Your task to perform on an android device: check battery use Image 0: 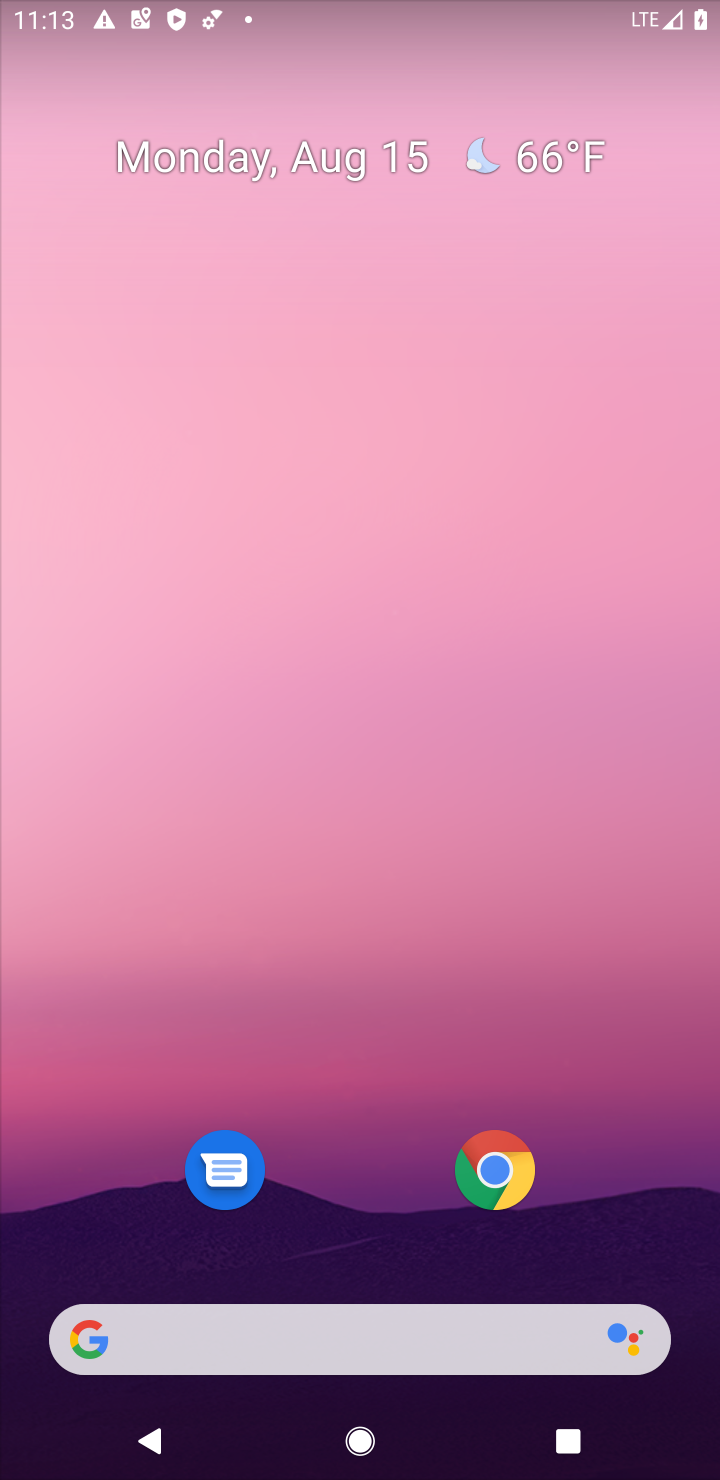
Step 0: press home button
Your task to perform on an android device: check battery use Image 1: 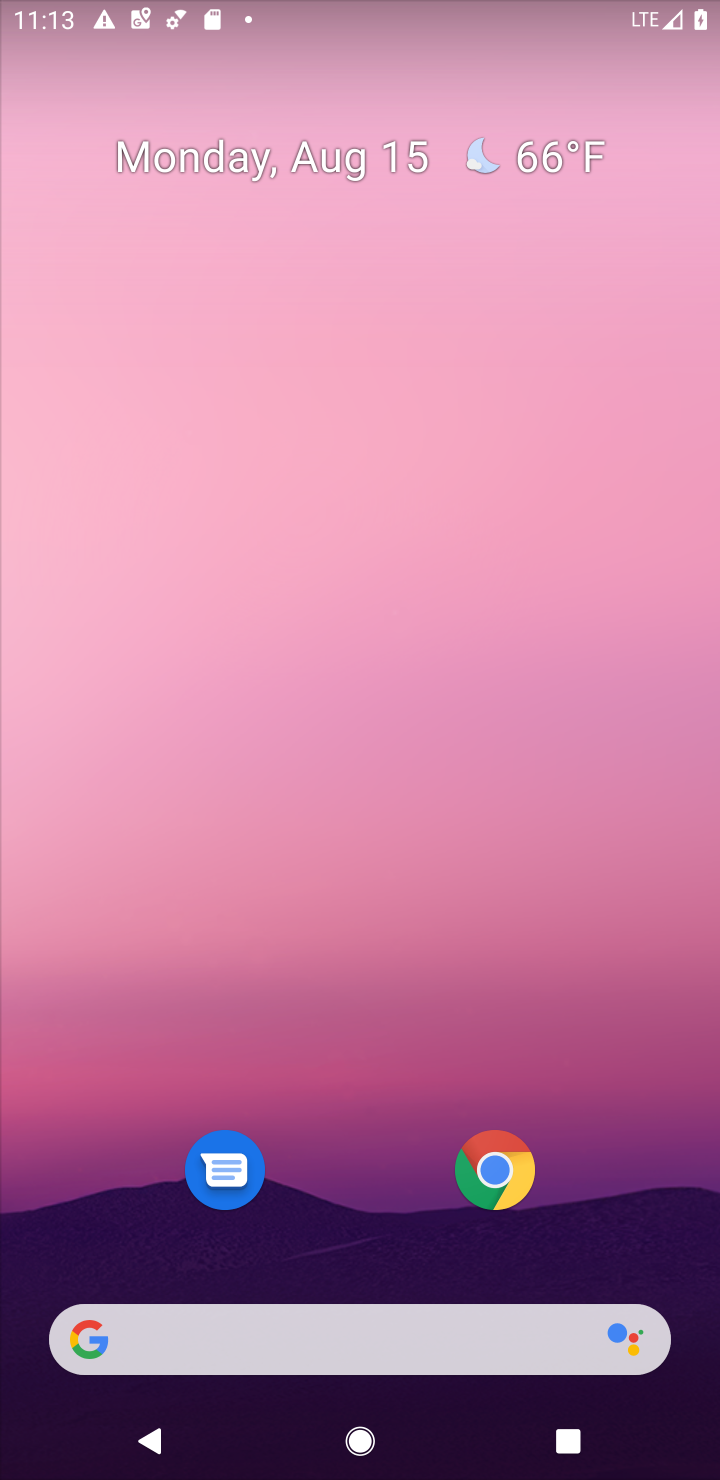
Step 1: drag from (5, 698) to (718, 738)
Your task to perform on an android device: check battery use Image 2: 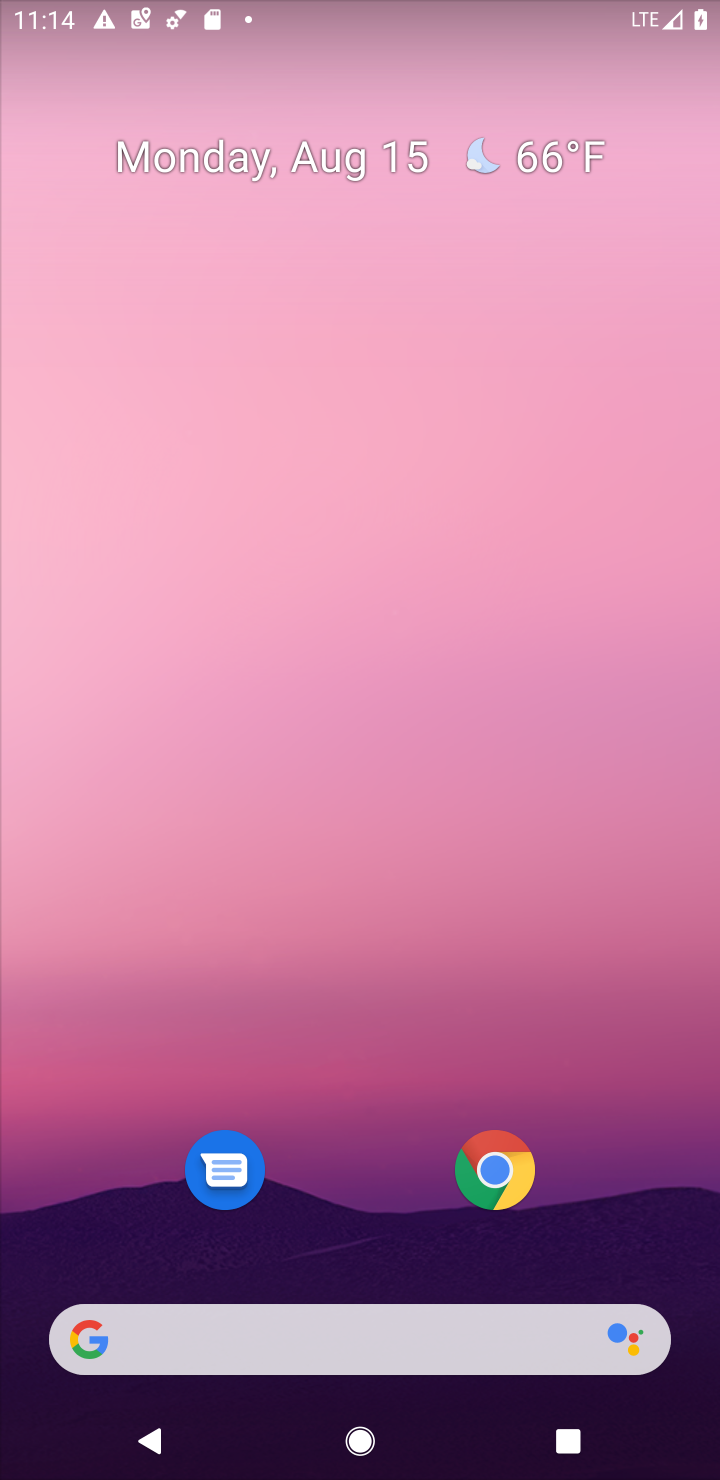
Step 2: drag from (452, 686) to (703, 644)
Your task to perform on an android device: check battery use Image 3: 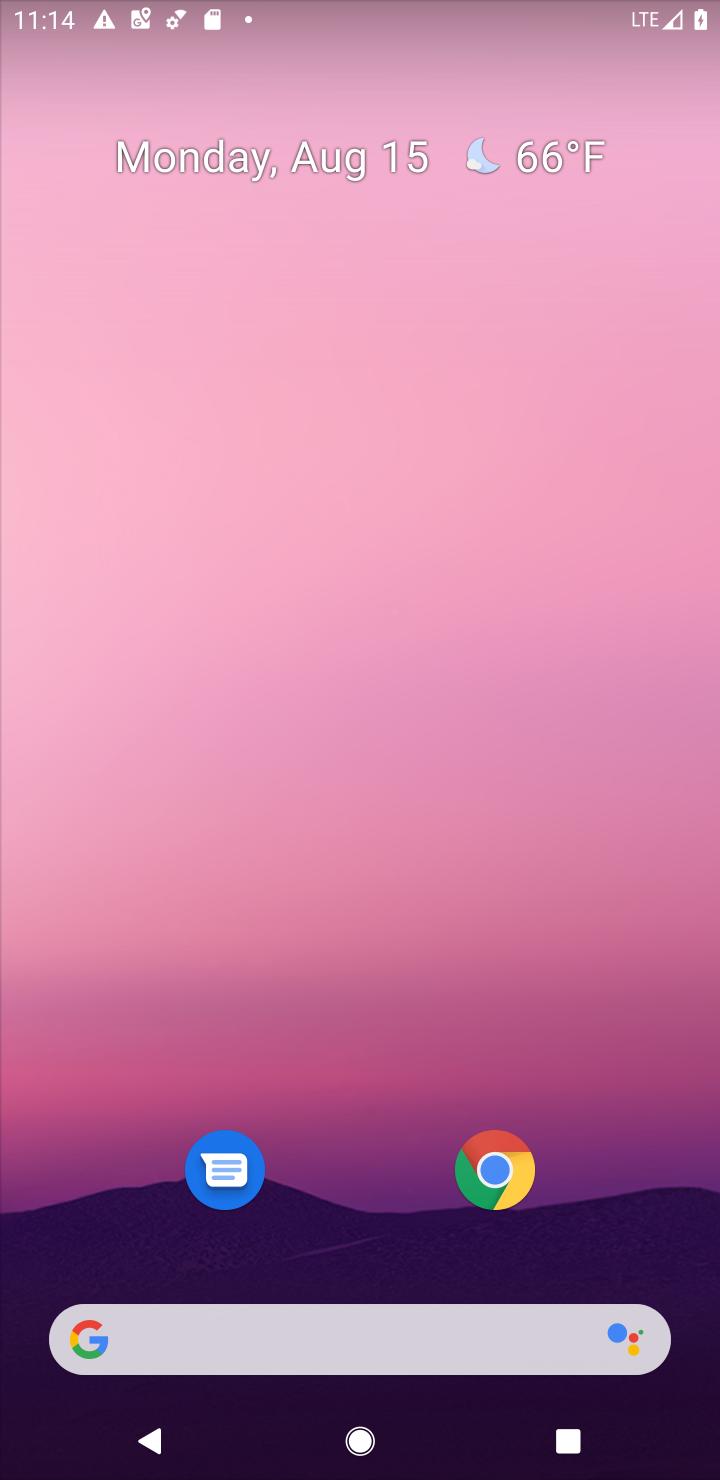
Step 3: drag from (12, 707) to (711, 699)
Your task to perform on an android device: check battery use Image 4: 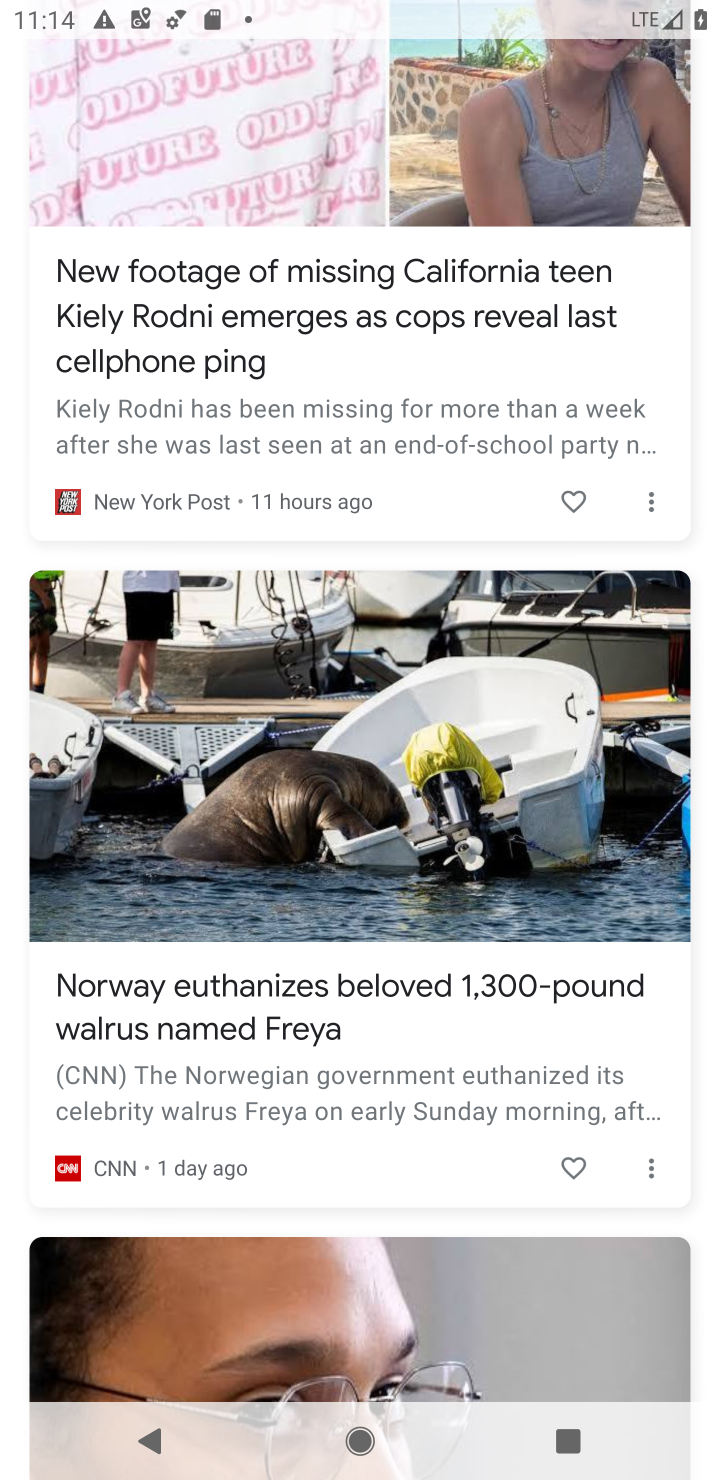
Step 4: press home button
Your task to perform on an android device: check battery use Image 5: 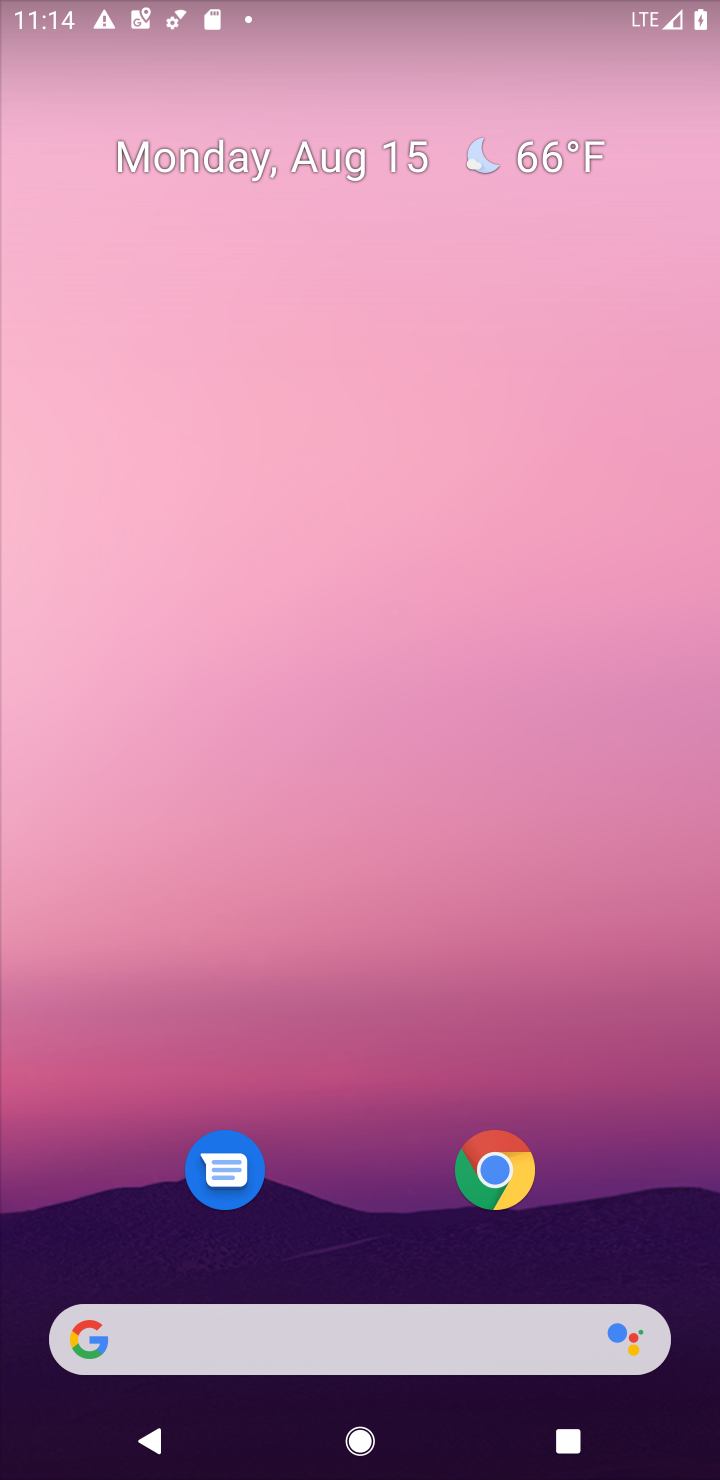
Step 5: drag from (435, 685) to (476, 0)
Your task to perform on an android device: check battery use Image 6: 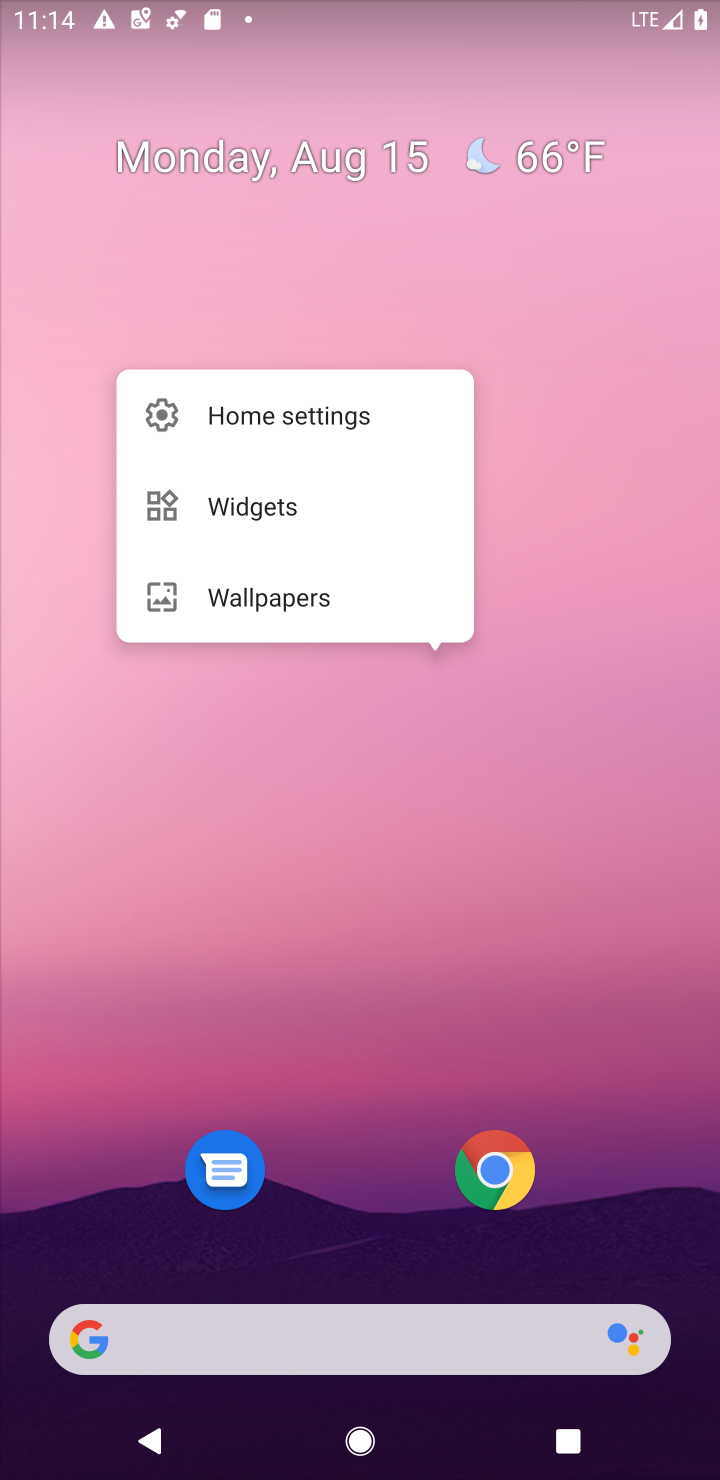
Step 6: click (349, 1253)
Your task to perform on an android device: check battery use Image 7: 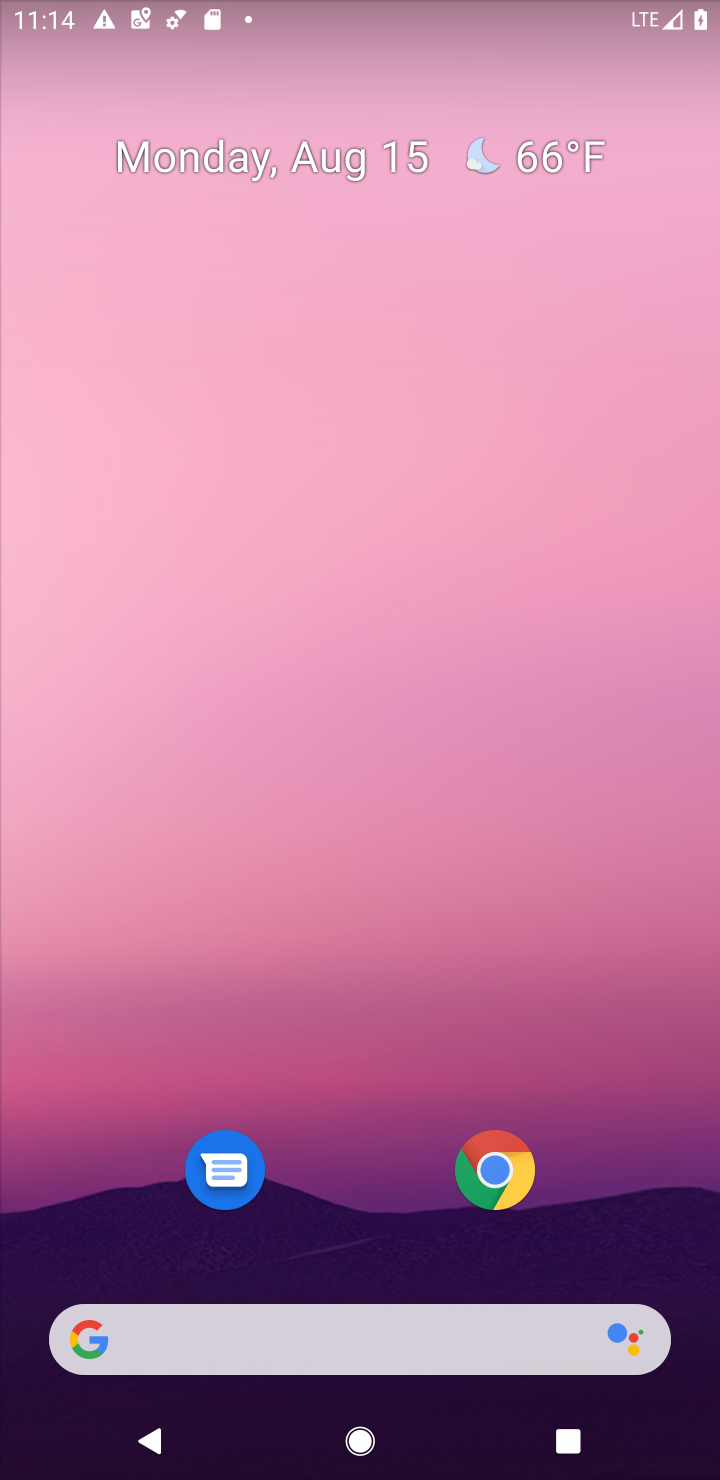
Step 7: drag from (407, 1270) to (519, 26)
Your task to perform on an android device: check battery use Image 8: 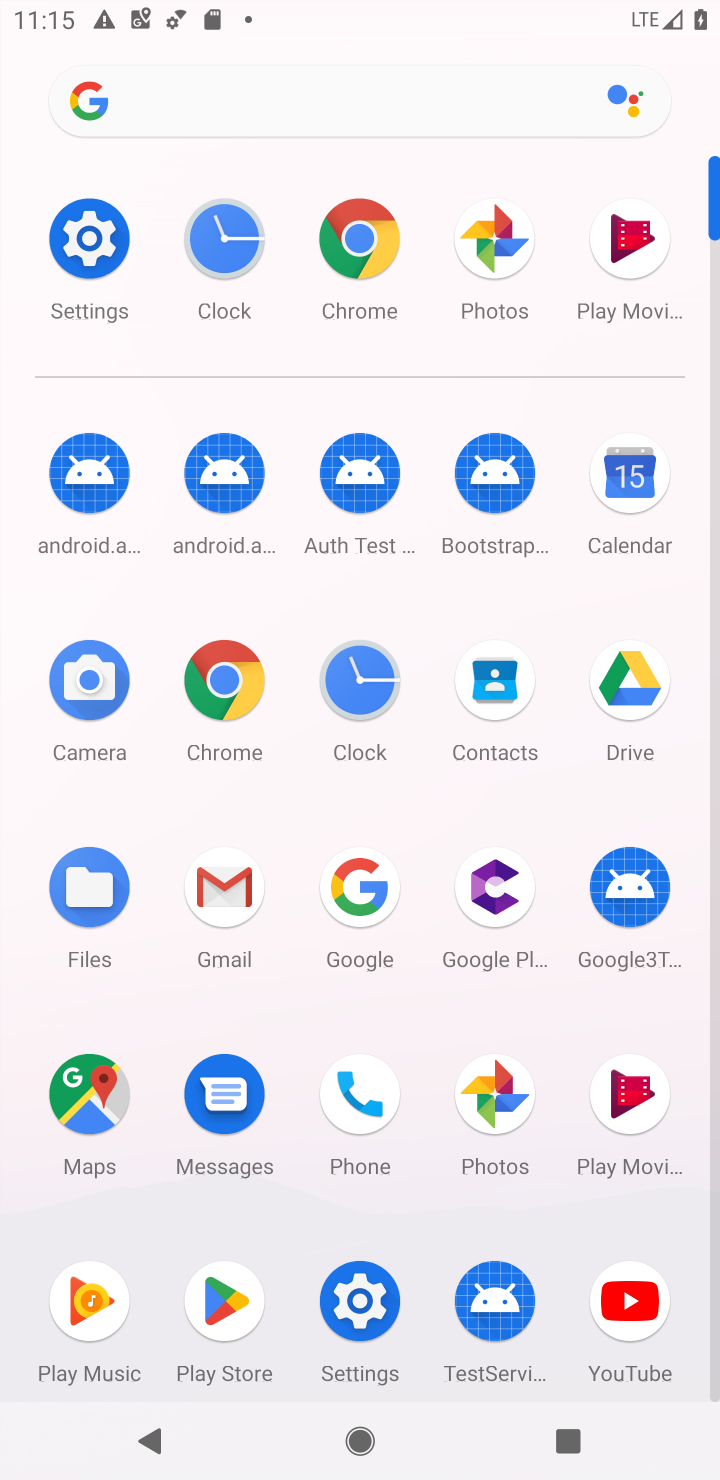
Step 8: click (94, 226)
Your task to perform on an android device: check battery use Image 9: 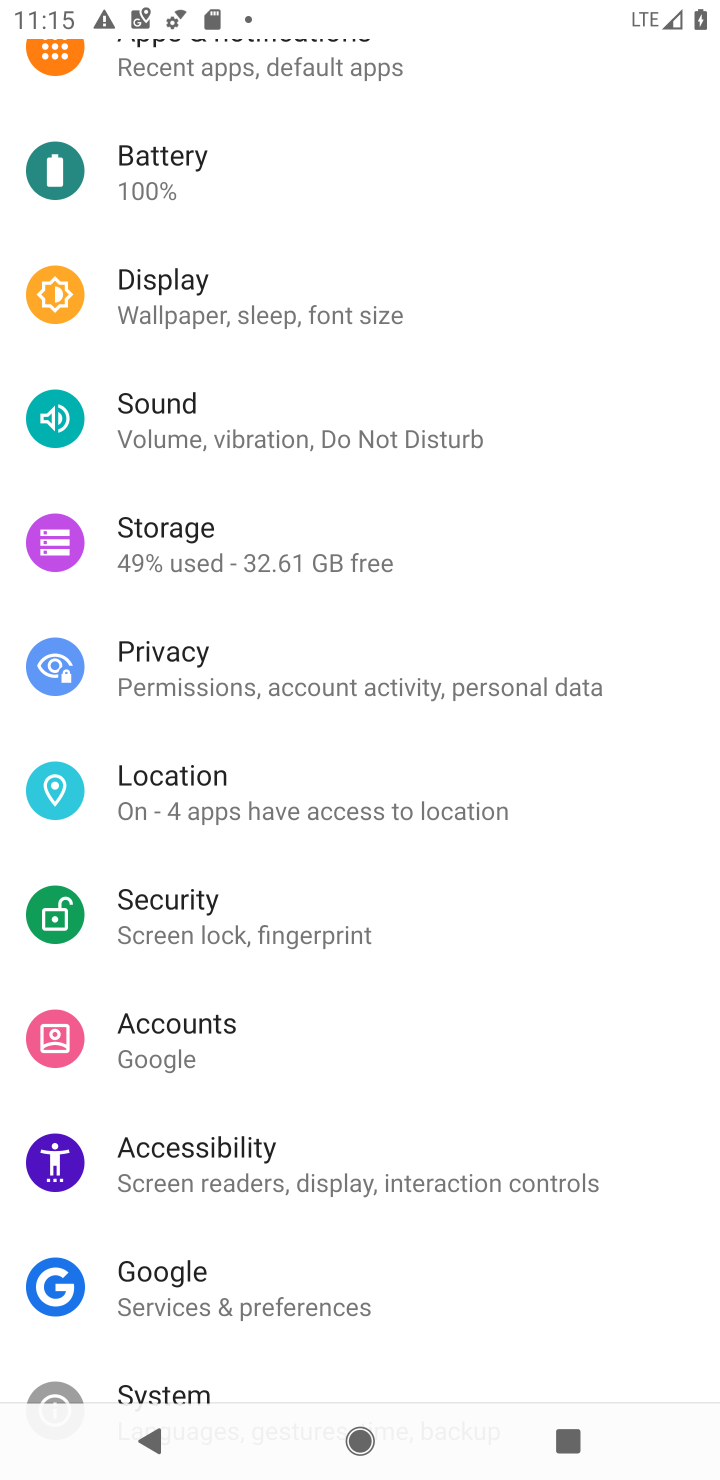
Step 9: click (230, 171)
Your task to perform on an android device: check battery use Image 10: 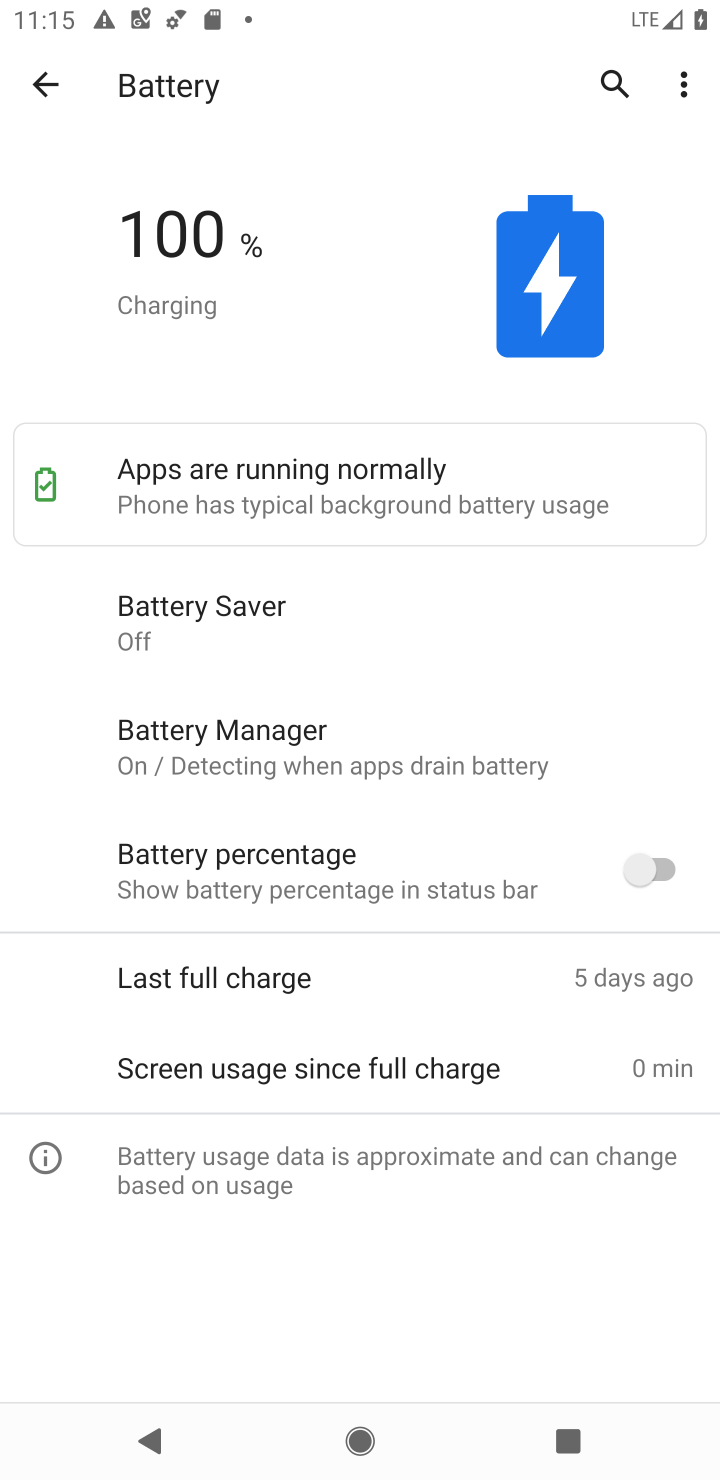
Step 10: click (686, 77)
Your task to perform on an android device: check battery use Image 11: 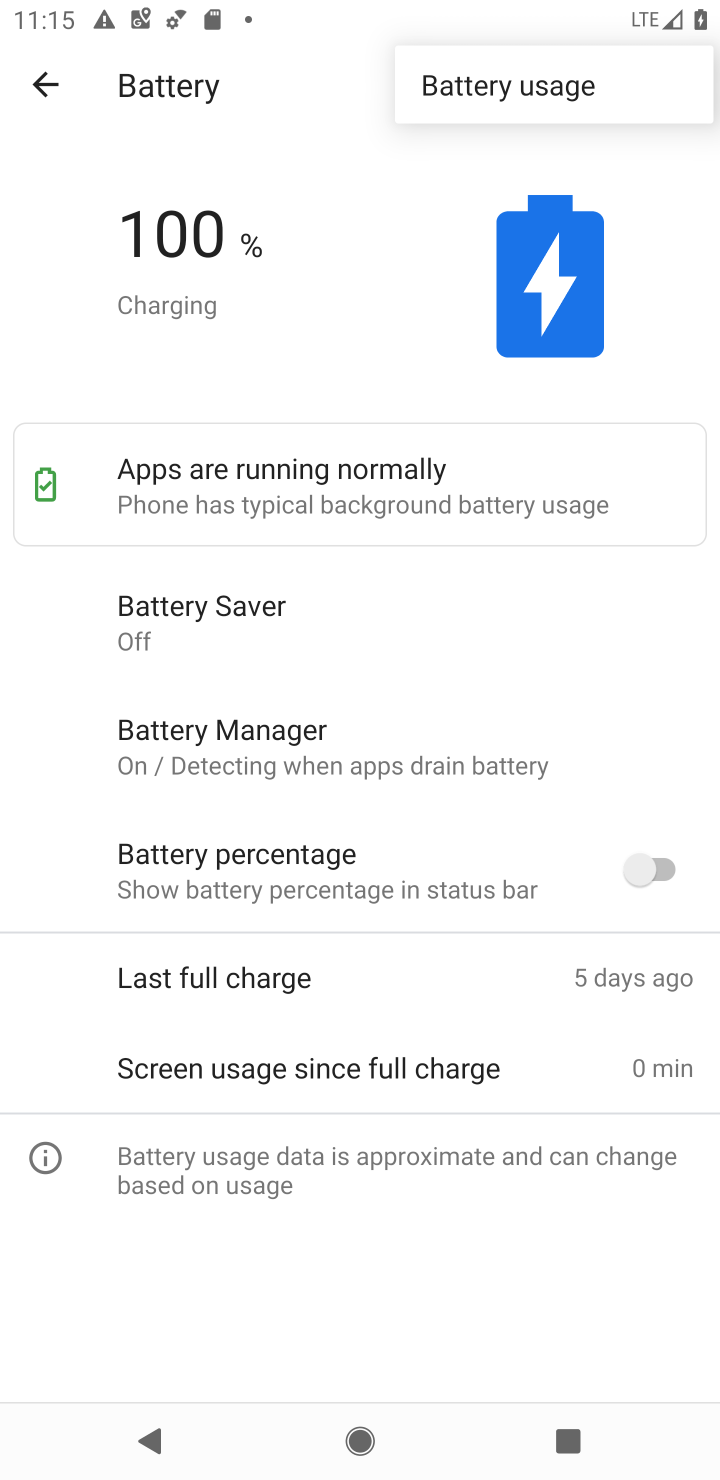
Step 11: click (510, 86)
Your task to perform on an android device: check battery use Image 12: 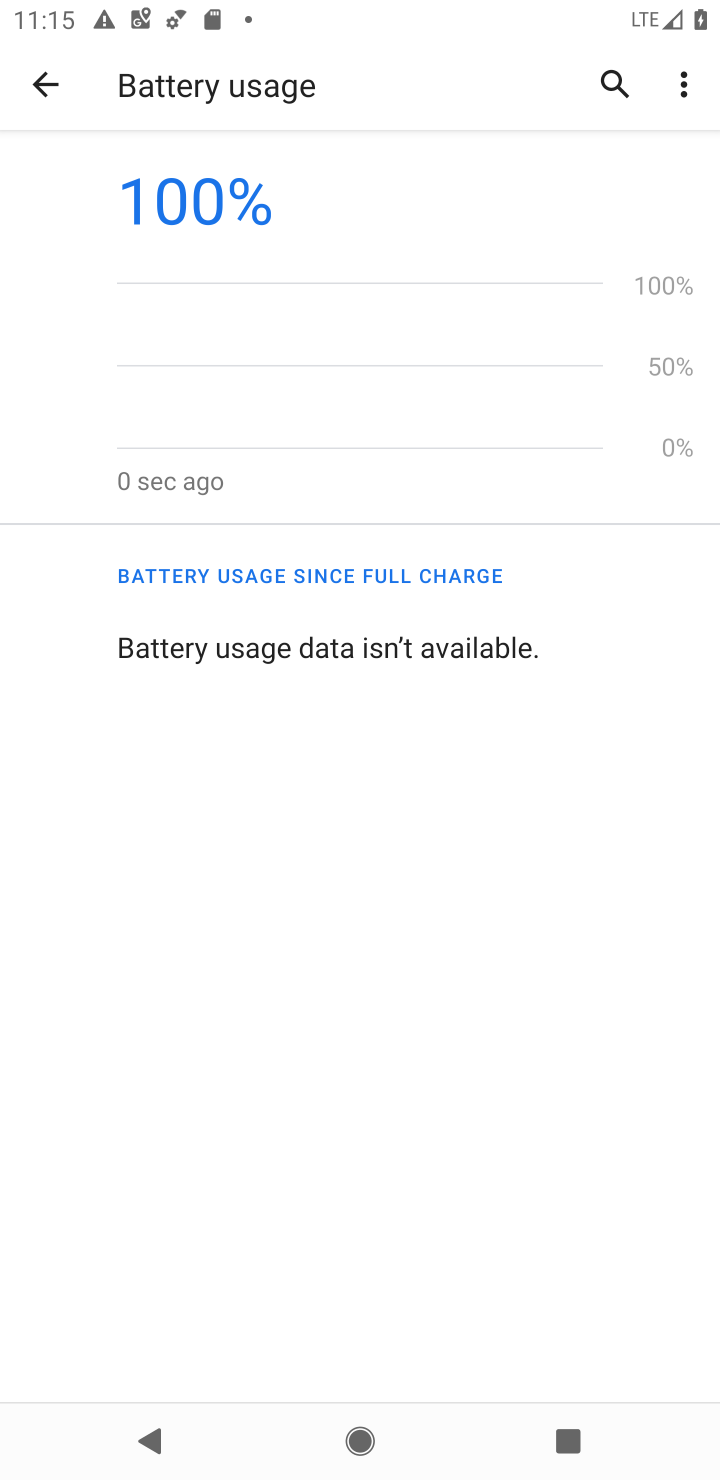
Step 12: task complete